Your task to perform on an android device: Go to Google maps Image 0: 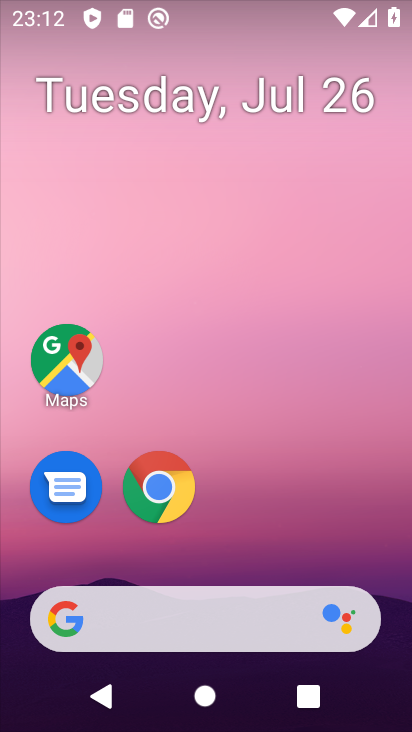
Step 0: click (72, 350)
Your task to perform on an android device: Go to Google maps Image 1: 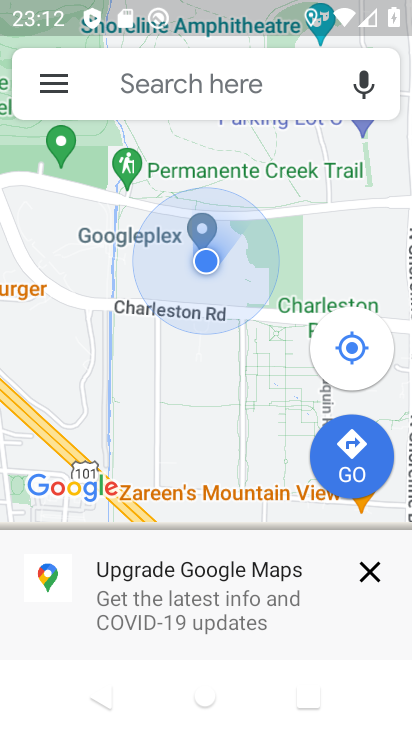
Step 1: task complete